Your task to perform on an android device: Open Google Image 0: 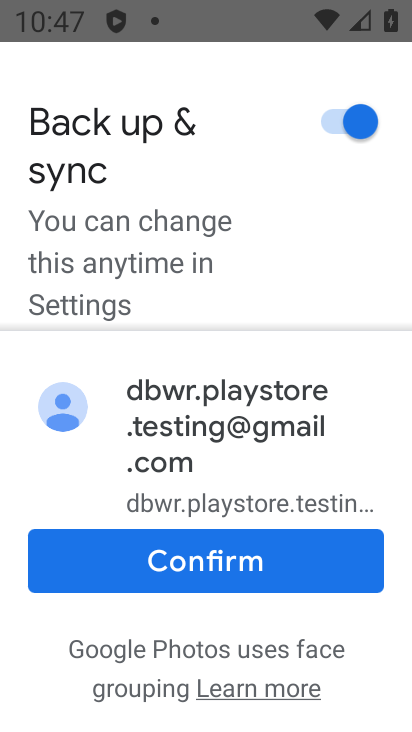
Step 0: press home button
Your task to perform on an android device: Open Google Image 1: 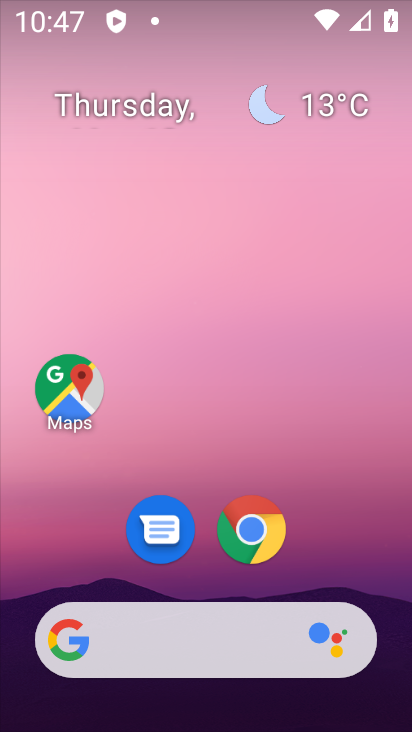
Step 1: drag from (209, 559) to (158, 194)
Your task to perform on an android device: Open Google Image 2: 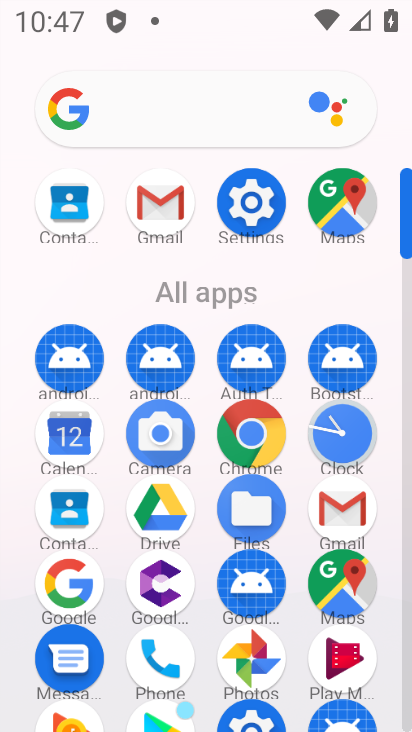
Step 2: click (64, 564)
Your task to perform on an android device: Open Google Image 3: 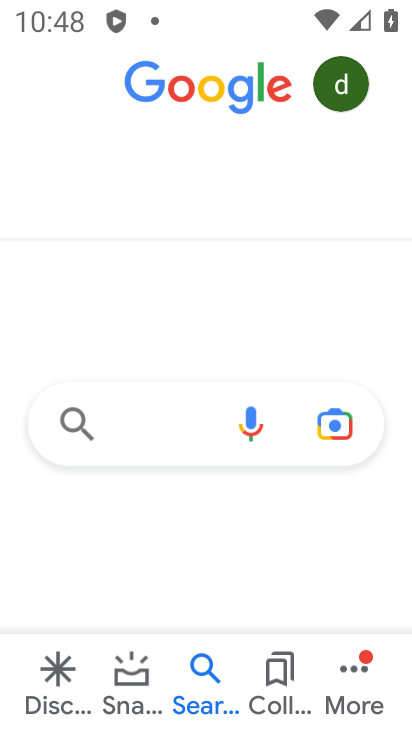
Step 3: task complete